Your task to perform on an android device: Toggle the flashlight Image 0: 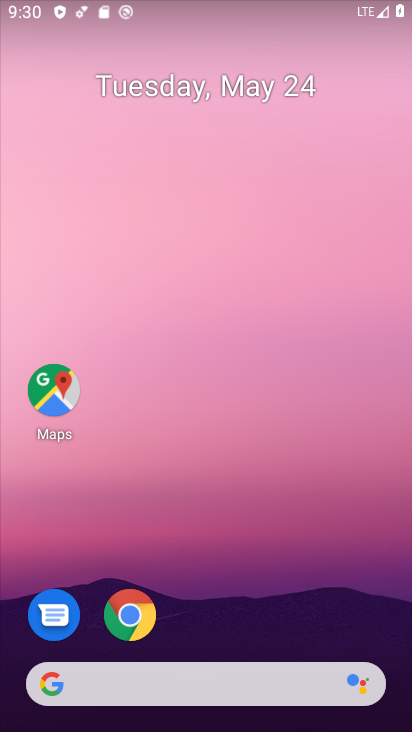
Step 0: drag from (266, 612) to (170, 34)
Your task to perform on an android device: Toggle the flashlight Image 1: 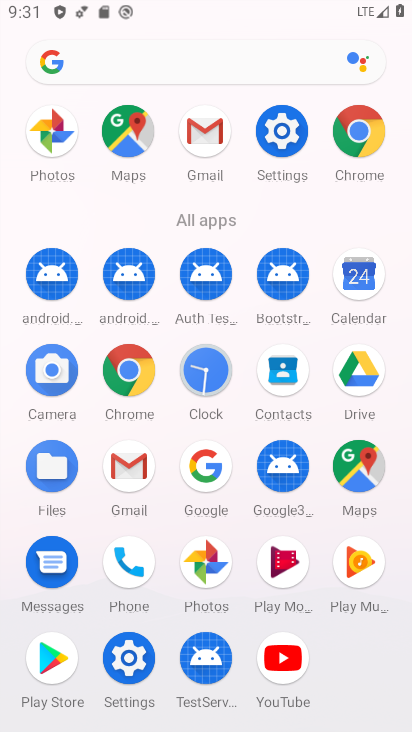
Step 1: click (134, 653)
Your task to perform on an android device: Toggle the flashlight Image 2: 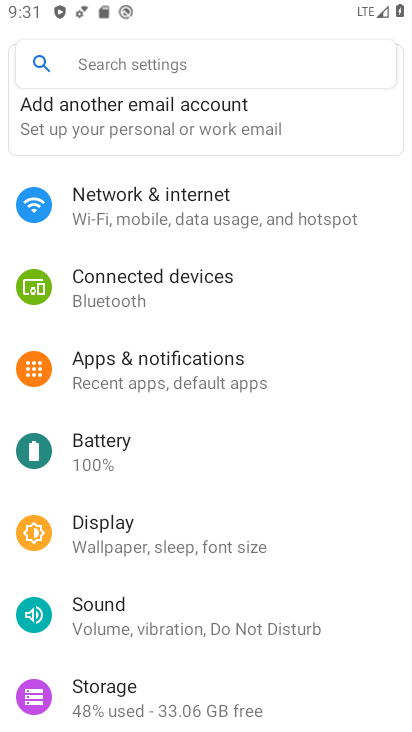
Step 2: task complete